Your task to perform on an android device: change the clock style Image 0: 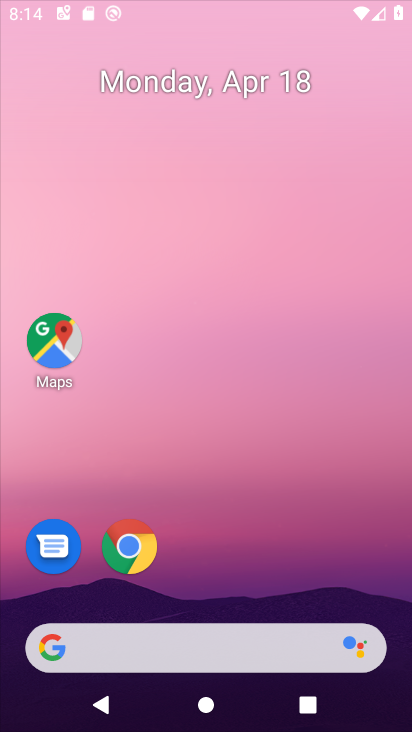
Step 0: click (229, 173)
Your task to perform on an android device: change the clock style Image 1: 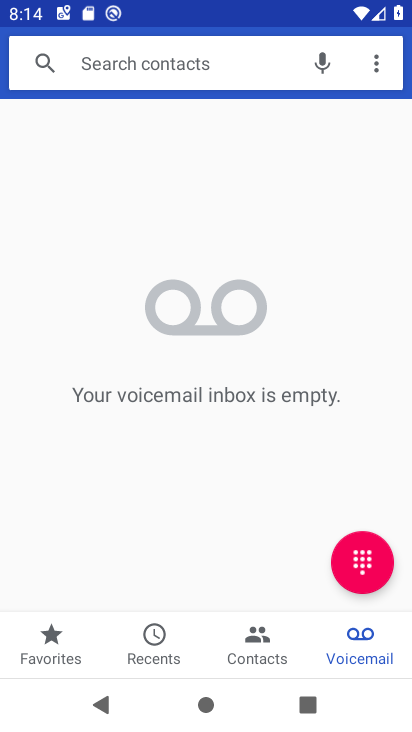
Step 1: press home button
Your task to perform on an android device: change the clock style Image 2: 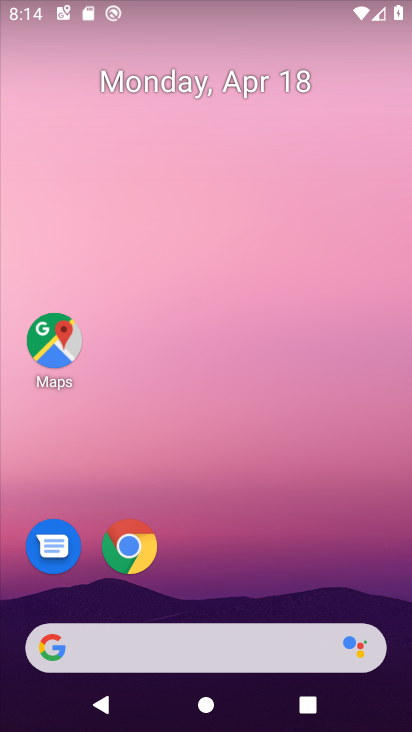
Step 2: drag from (262, 250) to (270, 163)
Your task to perform on an android device: change the clock style Image 3: 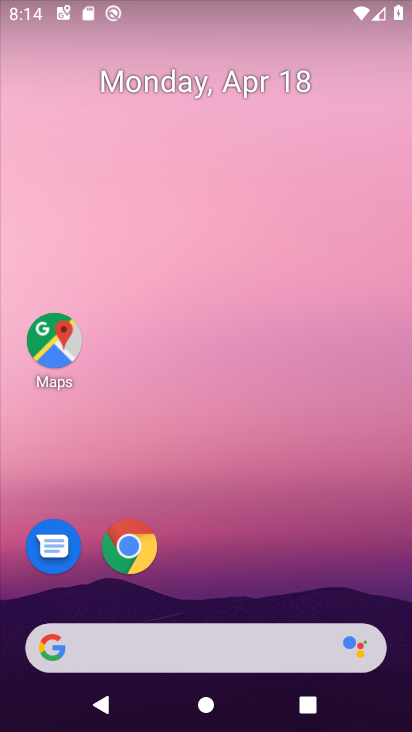
Step 3: drag from (386, 531) to (339, 0)
Your task to perform on an android device: change the clock style Image 4: 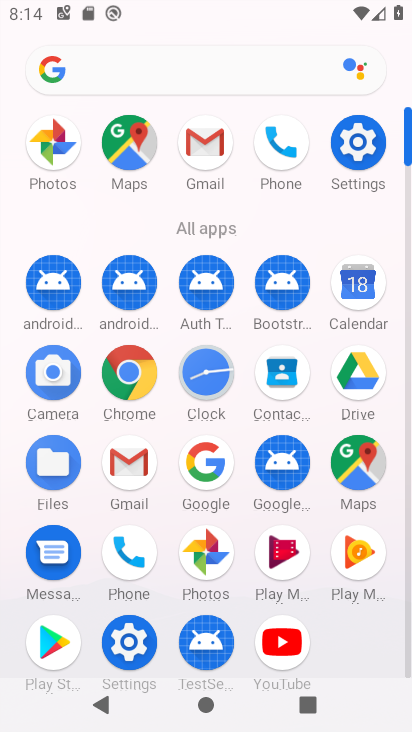
Step 4: click (211, 395)
Your task to perform on an android device: change the clock style Image 5: 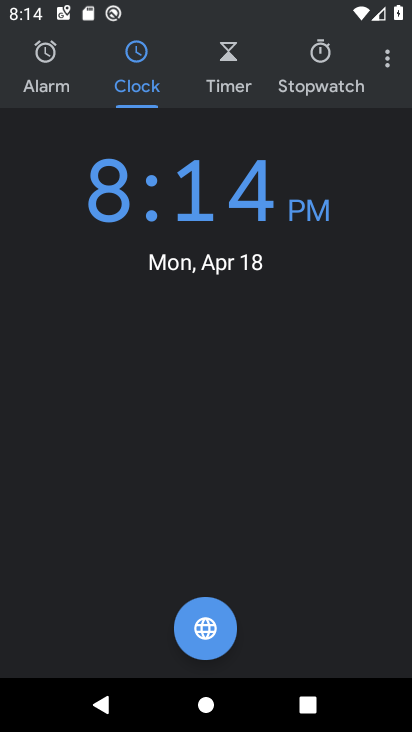
Step 5: click (386, 53)
Your task to perform on an android device: change the clock style Image 6: 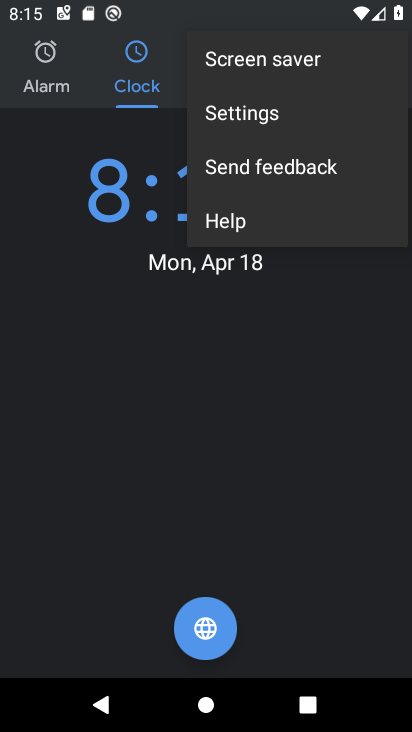
Step 6: click (314, 109)
Your task to perform on an android device: change the clock style Image 7: 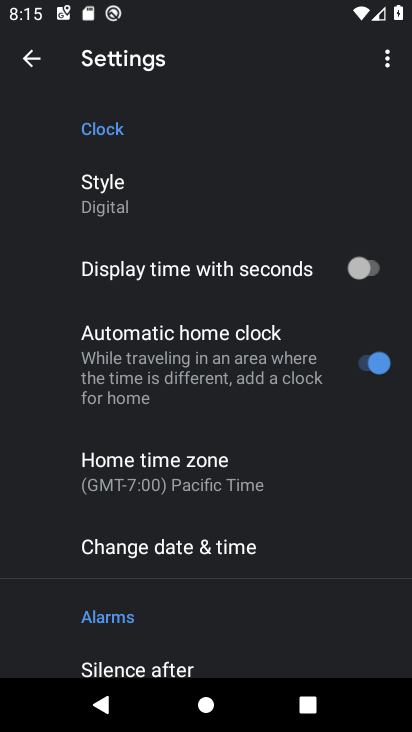
Step 7: click (258, 203)
Your task to perform on an android device: change the clock style Image 8: 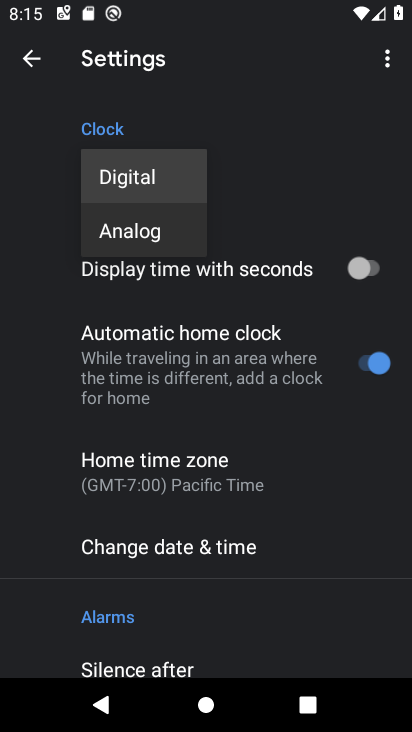
Step 8: click (191, 245)
Your task to perform on an android device: change the clock style Image 9: 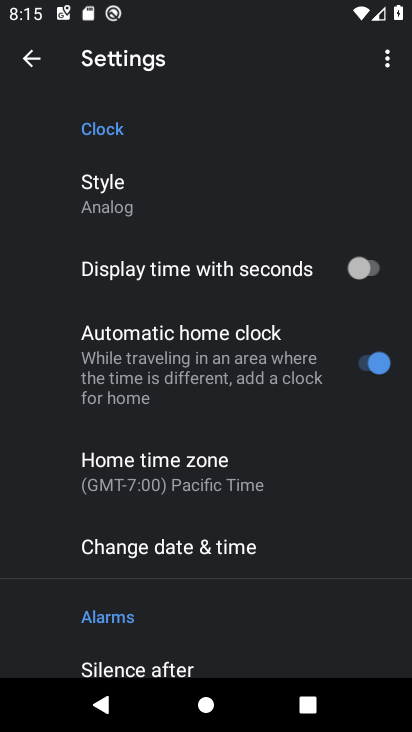
Step 9: task complete